Your task to perform on an android device: Set the phone to "Do not disturb". Image 0: 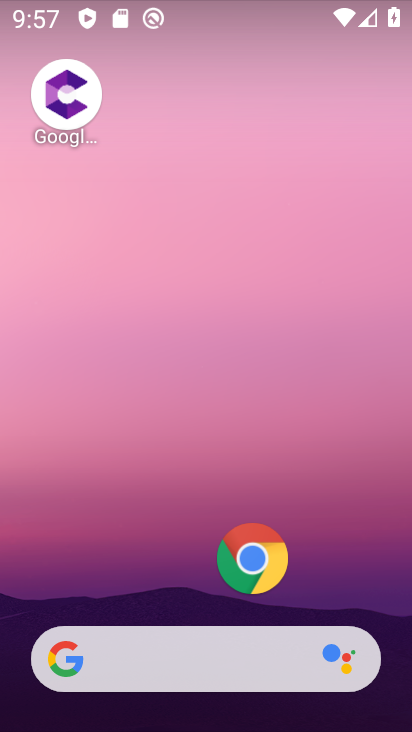
Step 0: drag from (260, 230) to (325, 58)
Your task to perform on an android device: Set the phone to "Do not disturb". Image 1: 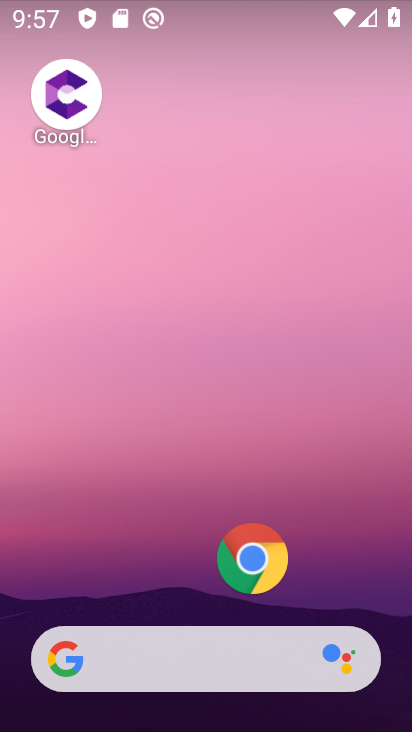
Step 1: drag from (174, 421) to (263, 74)
Your task to perform on an android device: Set the phone to "Do not disturb". Image 2: 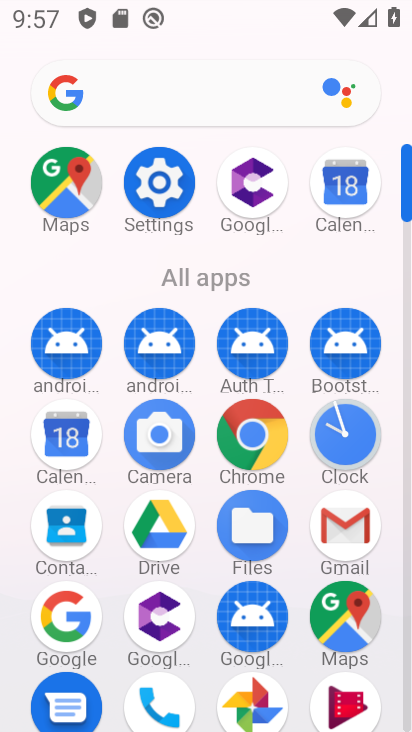
Step 2: drag from (182, 611) to (267, 265)
Your task to perform on an android device: Set the phone to "Do not disturb". Image 3: 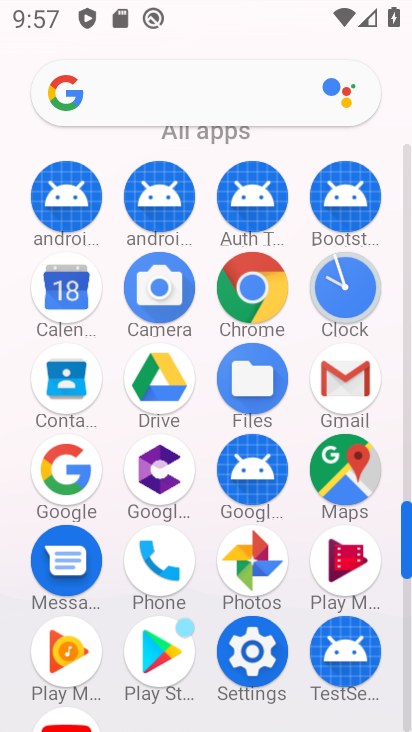
Step 3: click (250, 654)
Your task to perform on an android device: Set the phone to "Do not disturb". Image 4: 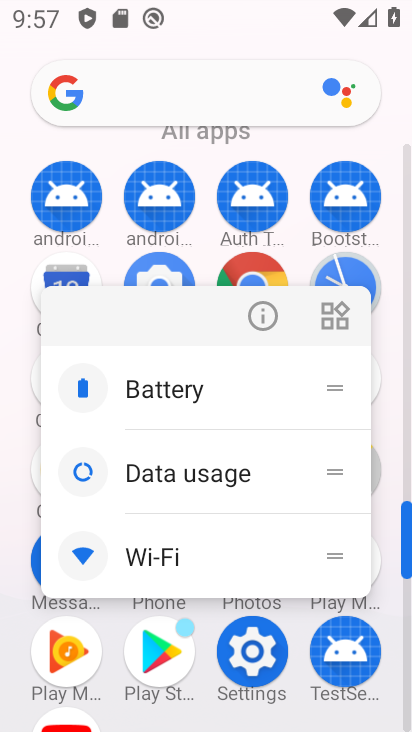
Step 4: click (245, 662)
Your task to perform on an android device: Set the phone to "Do not disturb". Image 5: 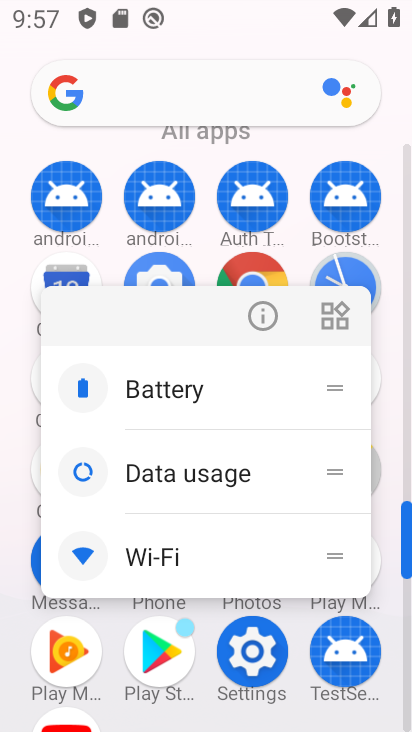
Step 5: click (265, 642)
Your task to perform on an android device: Set the phone to "Do not disturb". Image 6: 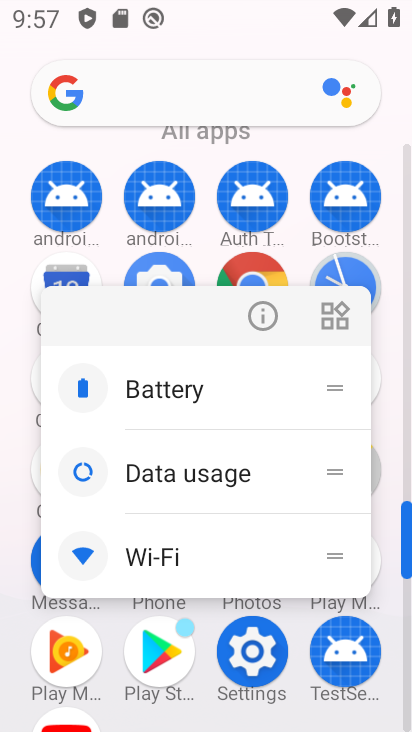
Step 6: click (254, 625)
Your task to perform on an android device: Set the phone to "Do not disturb". Image 7: 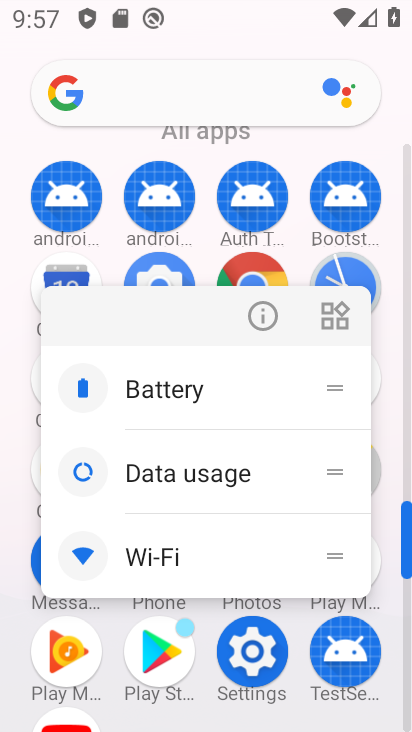
Step 7: click (251, 665)
Your task to perform on an android device: Set the phone to "Do not disturb". Image 8: 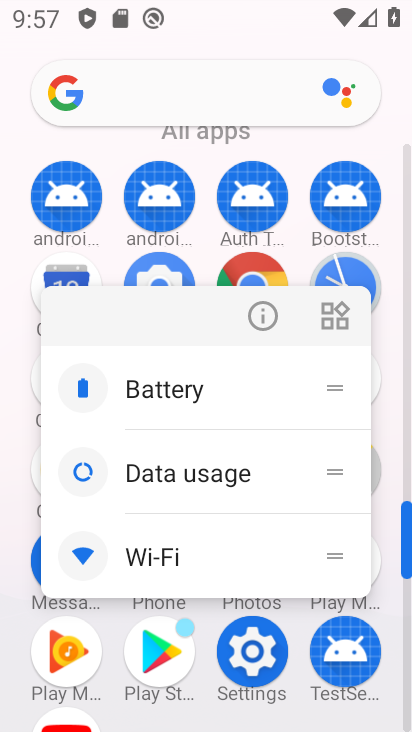
Step 8: click (262, 659)
Your task to perform on an android device: Set the phone to "Do not disturb". Image 9: 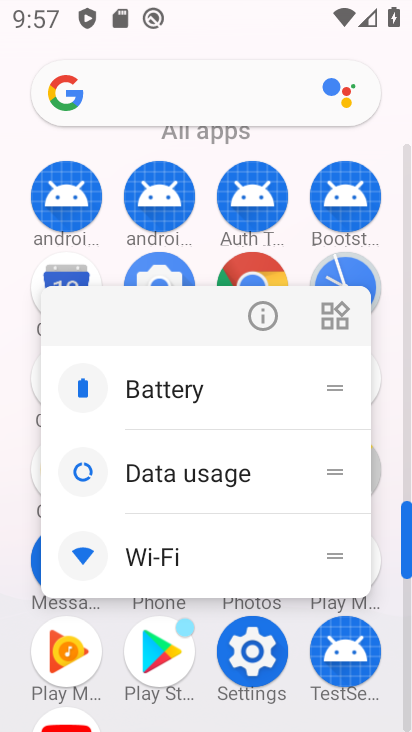
Step 9: click (246, 658)
Your task to perform on an android device: Set the phone to "Do not disturb". Image 10: 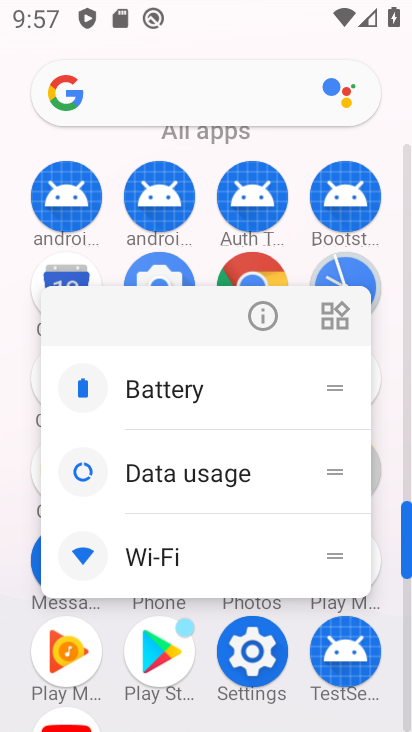
Step 10: click (233, 664)
Your task to perform on an android device: Set the phone to "Do not disturb". Image 11: 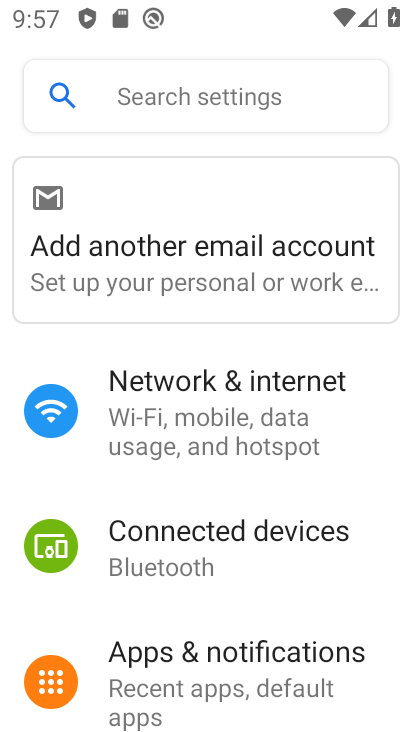
Step 11: drag from (341, 485) to (405, 403)
Your task to perform on an android device: Set the phone to "Do not disturb". Image 12: 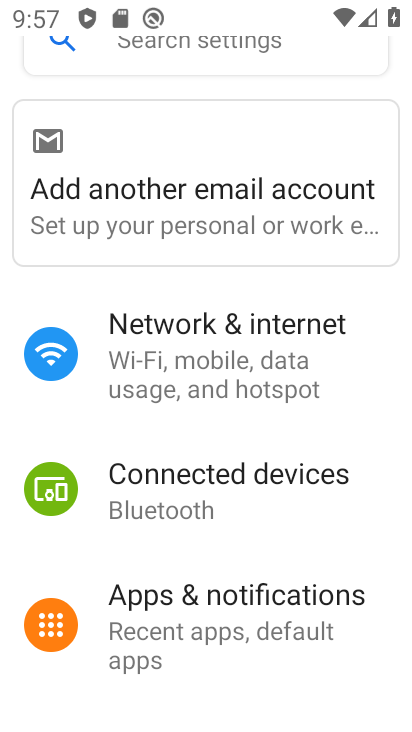
Step 12: click (293, 628)
Your task to perform on an android device: Set the phone to "Do not disturb". Image 13: 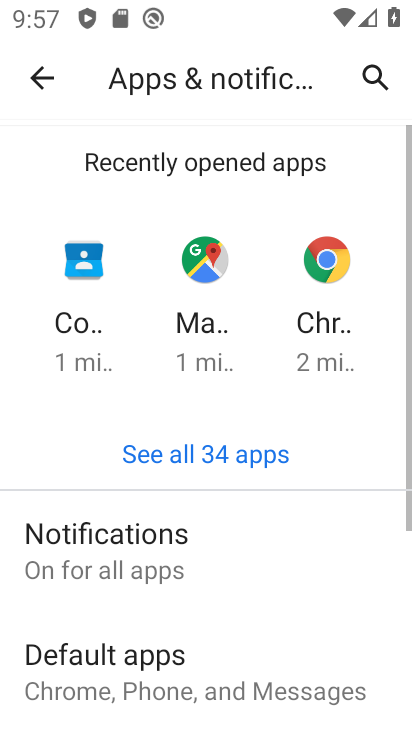
Step 13: drag from (285, 613) to (391, 495)
Your task to perform on an android device: Set the phone to "Do not disturb". Image 14: 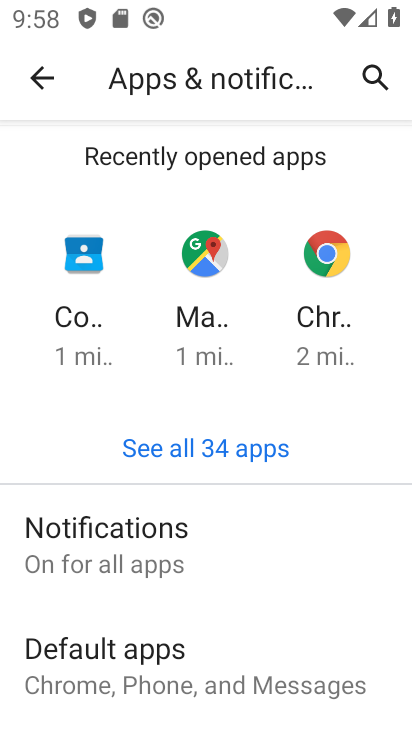
Step 14: drag from (184, 659) to (365, 274)
Your task to perform on an android device: Set the phone to "Do not disturb". Image 15: 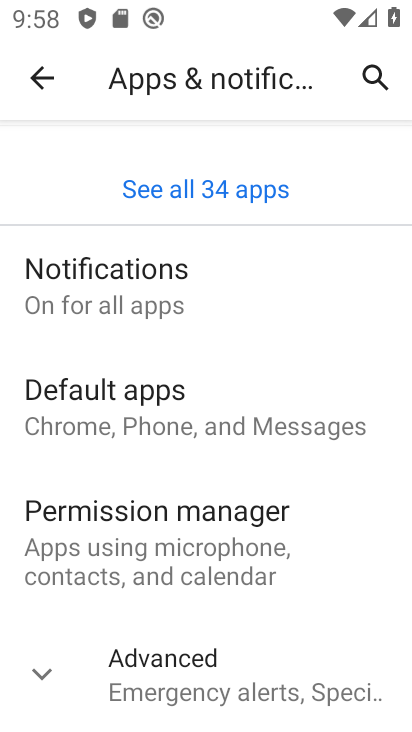
Step 15: drag from (249, 549) to (370, 271)
Your task to perform on an android device: Set the phone to "Do not disturb". Image 16: 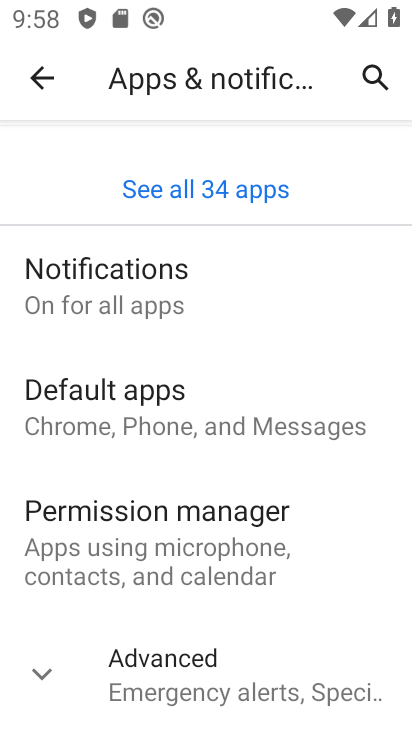
Step 16: click (249, 313)
Your task to perform on an android device: Set the phone to "Do not disturb". Image 17: 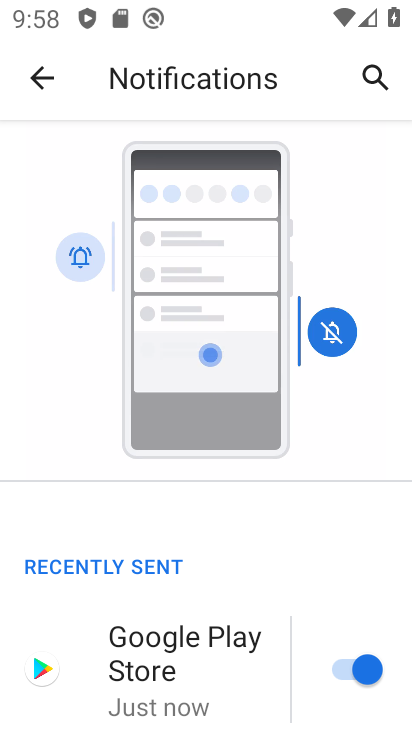
Step 17: drag from (177, 682) to (393, 138)
Your task to perform on an android device: Set the phone to "Do not disturb". Image 18: 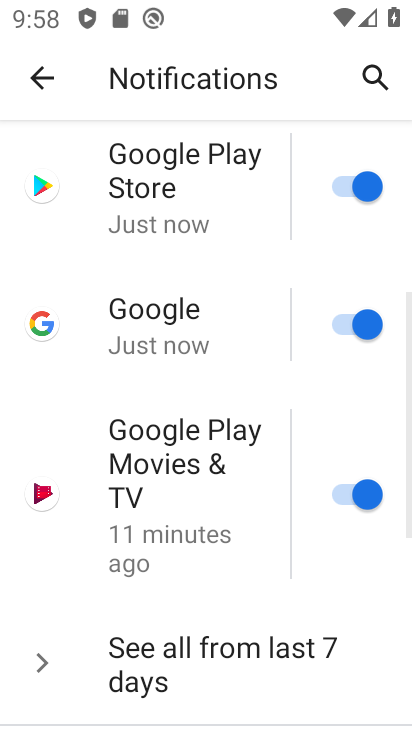
Step 18: drag from (264, 459) to (405, 151)
Your task to perform on an android device: Set the phone to "Do not disturb". Image 19: 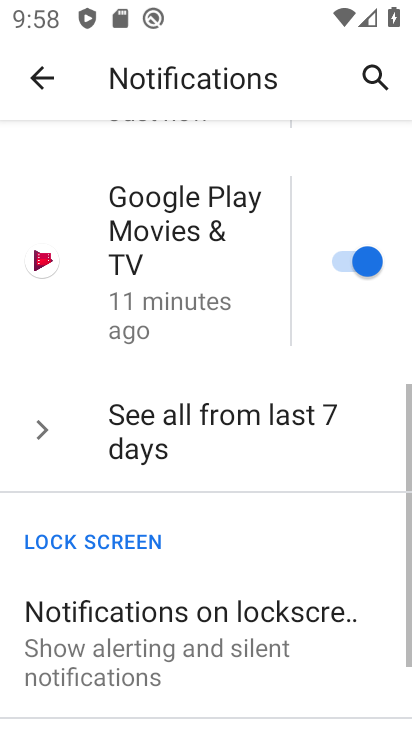
Step 19: drag from (255, 605) to (409, 286)
Your task to perform on an android device: Set the phone to "Do not disturb". Image 20: 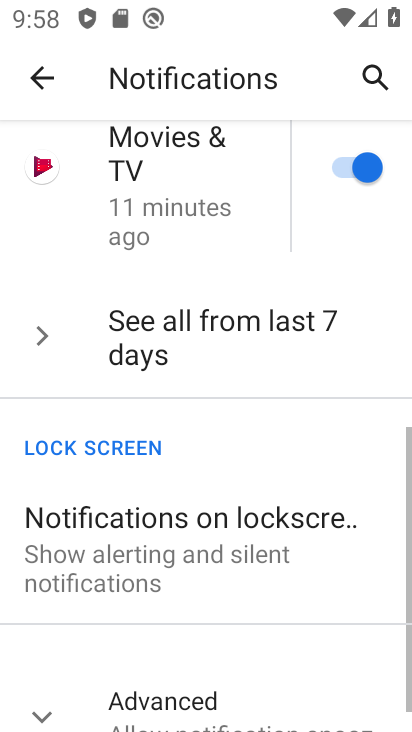
Step 20: click (272, 675)
Your task to perform on an android device: Set the phone to "Do not disturb". Image 21: 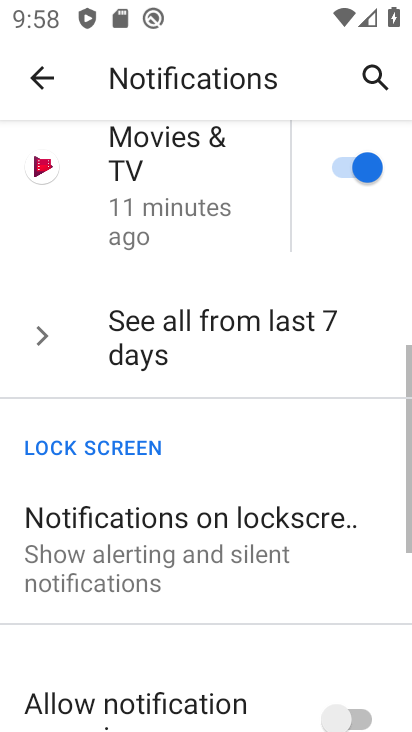
Step 21: drag from (219, 638) to (383, 192)
Your task to perform on an android device: Set the phone to "Do not disturb". Image 22: 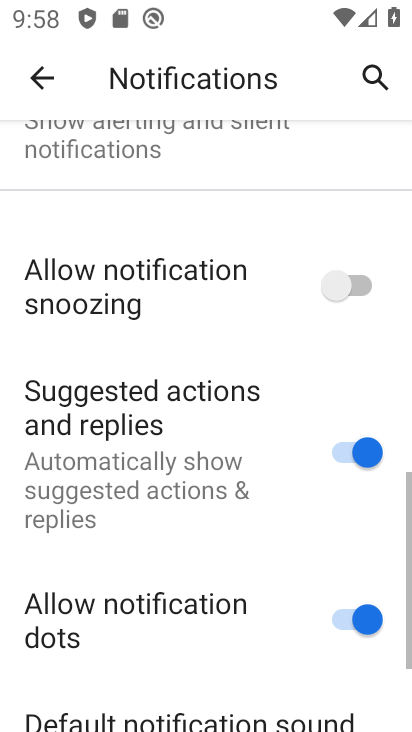
Step 22: drag from (214, 616) to (401, 176)
Your task to perform on an android device: Set the phone to "Do not disturb". Image 23: 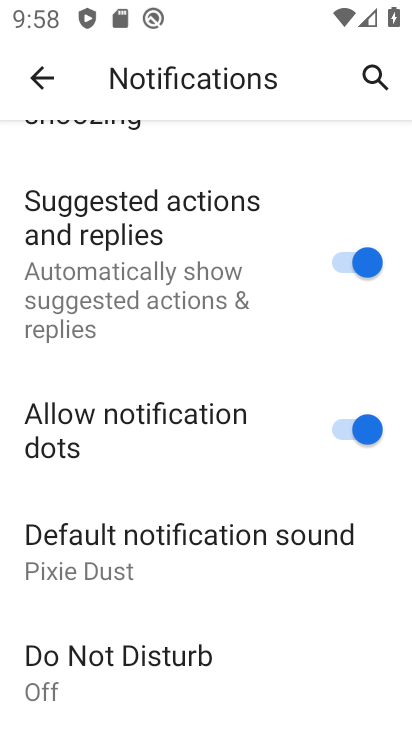
Step 23: click (236, 700)
Your task to perform on an android device: Set the phone to "Do not disturb". Image 24: 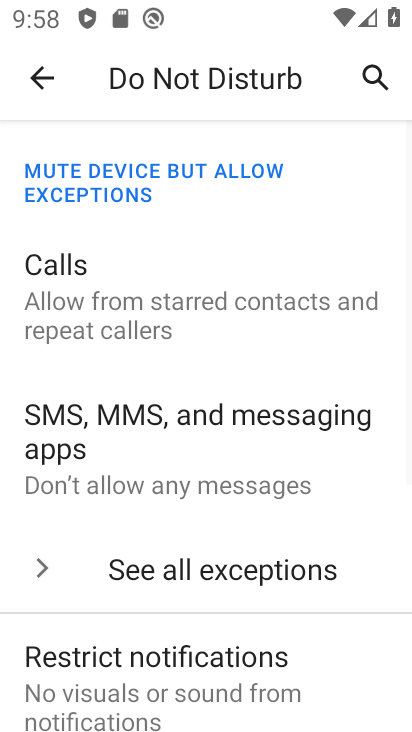
Step 24: drag from (170, 688) to (366, 163)
Your task to perform on an android device: Set the phone to "Do not disturb". Image 25: 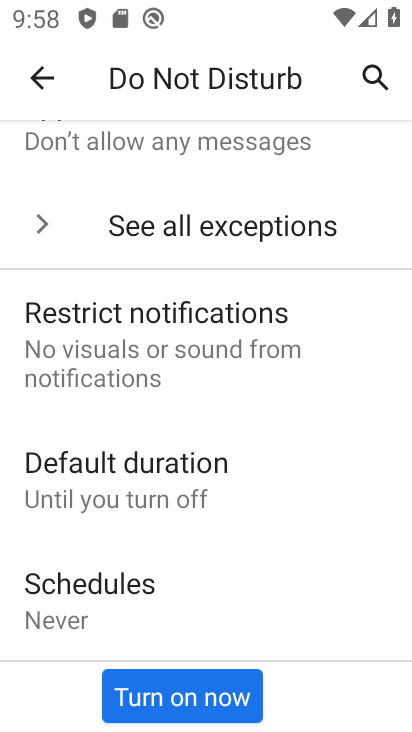
Step 25: click (161, 693)
Your task to perform on an android device: Set the phone to "Do not disturb". Image 26: 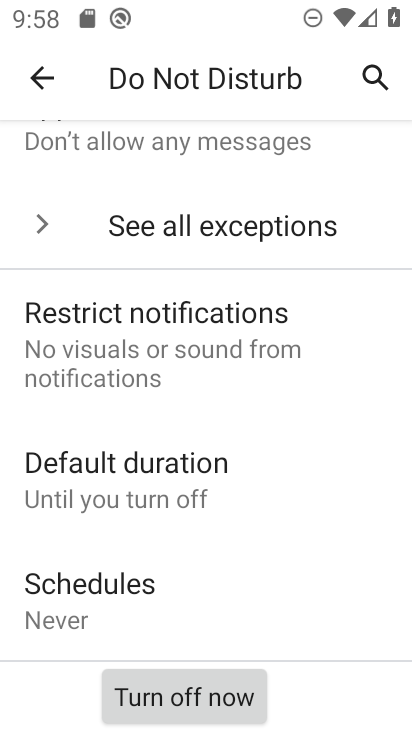
Step 26: task complete